Your task to perform on an android device: View the shopping cart on bestbuy. Image 0: 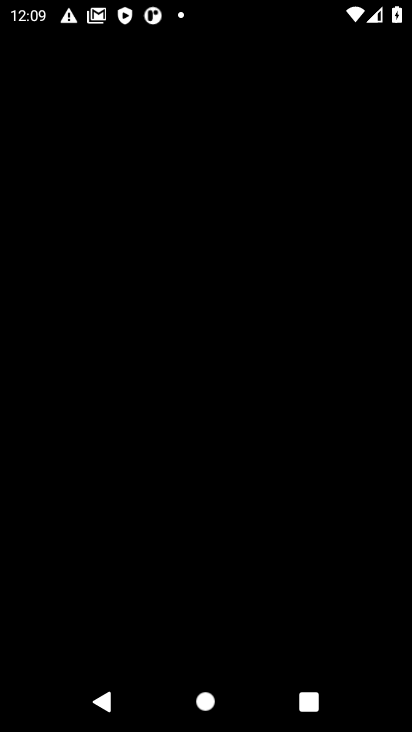
Step 0: press home button
Your task to perform on an android device: View the shopping cart on bestbuy. Image 1: 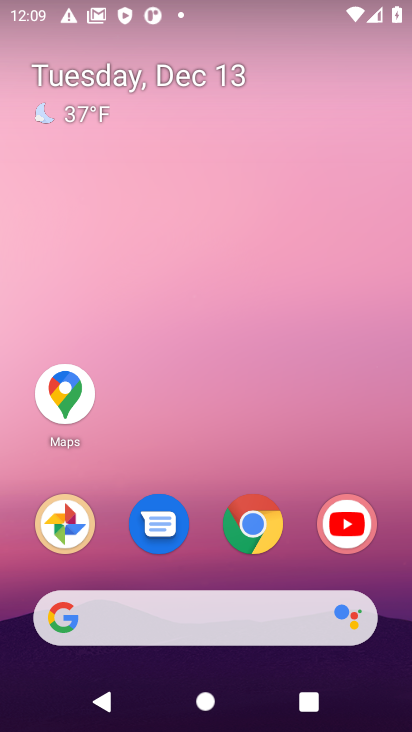
Step 1: click (247, 531)
Your task to perform on an android device: View the shopping cart on bestbuy. Image 2: 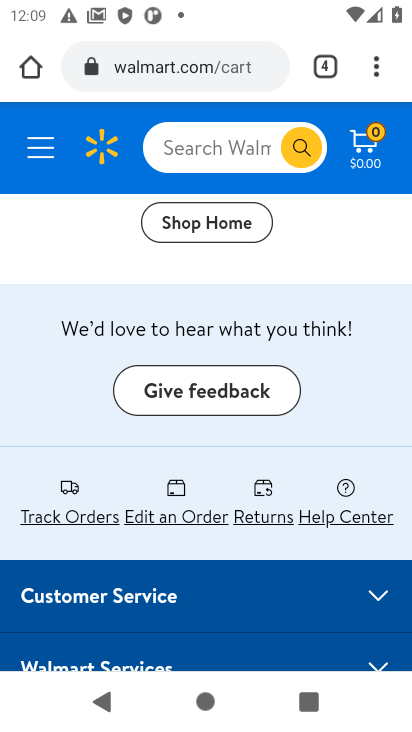
Step 2: click (169, 65)
Your task to perform on an android device: View the shopping cart on bestbuy. Image 3: 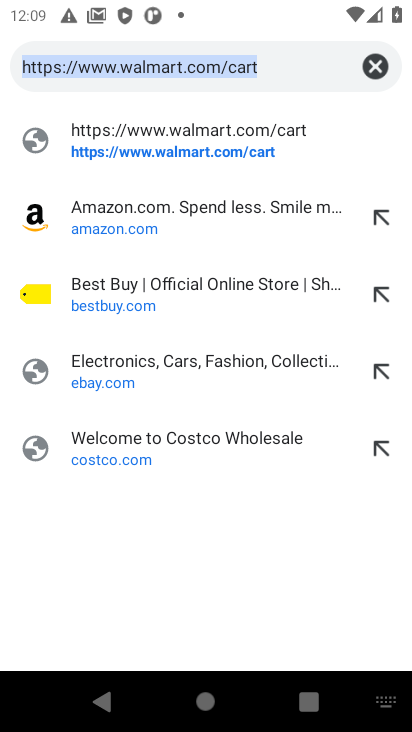
Step 3: click (99, 302)
Your task to perform on an android device: View the shopping cart on bestbuy. Image 4: 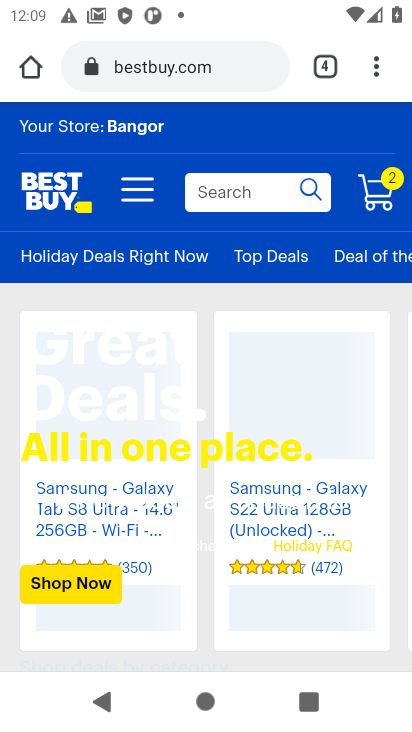
Step 4: click (380, 196)
Your task to perform on an android device: View the shopping cart on bestbuy. Image 5: 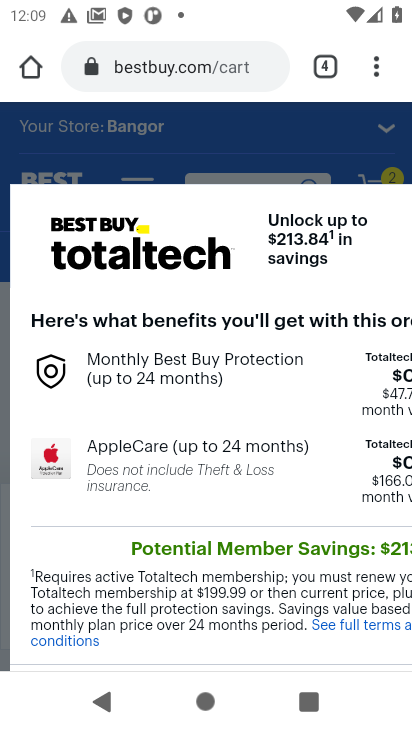
Step 5: click (312, 148)
Your task to perform on an android device: View the shopping cart on bestbuy. Image 6: 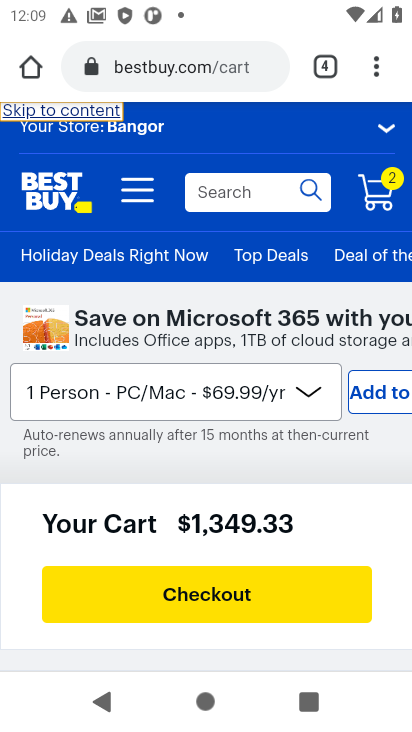
Step 6: task complete